Your task to perform on an android device: check google app version Image 0: 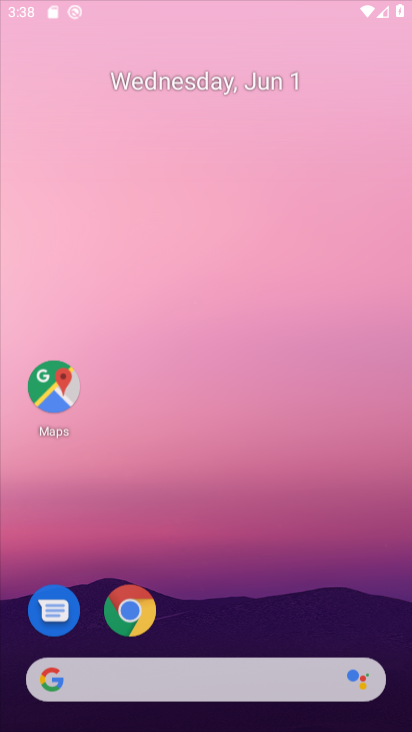
Step 0: click (194, 123)
Your task to perform on an android device: check google app version Image 1: 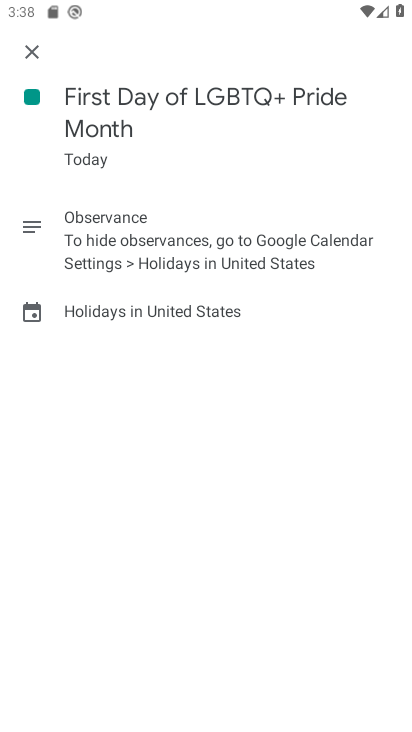
Step 1: press home button
Your task to perform on an android device: check google app version Image 2: 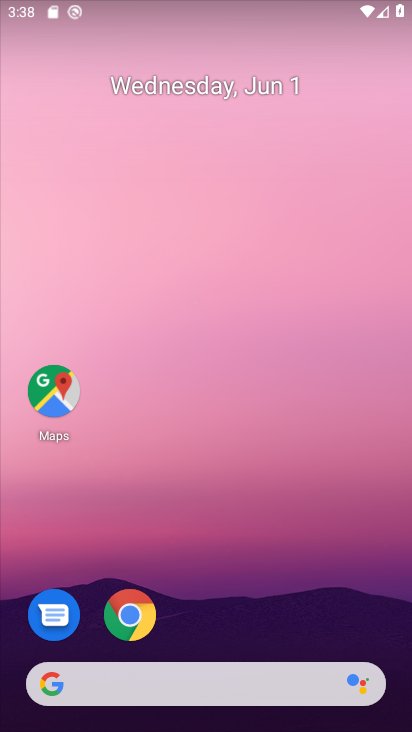
Step 2: drag from (241, 535) to (243, 155)
Your task to perform on an android device: check google app version Image 3: 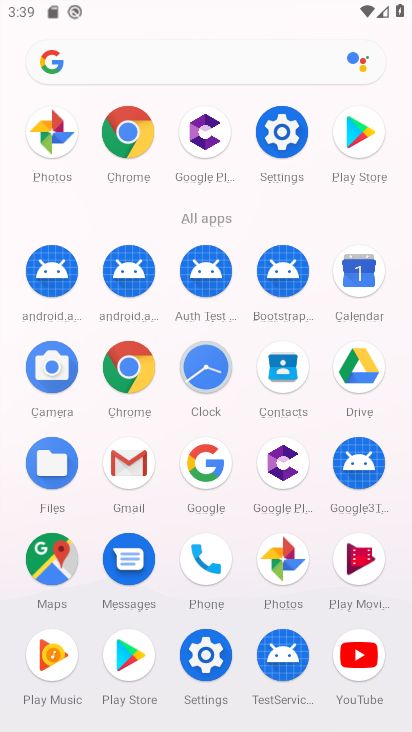
Step 3: click (194, 472)
Your task to perform on an android device: check google app version Image 4: 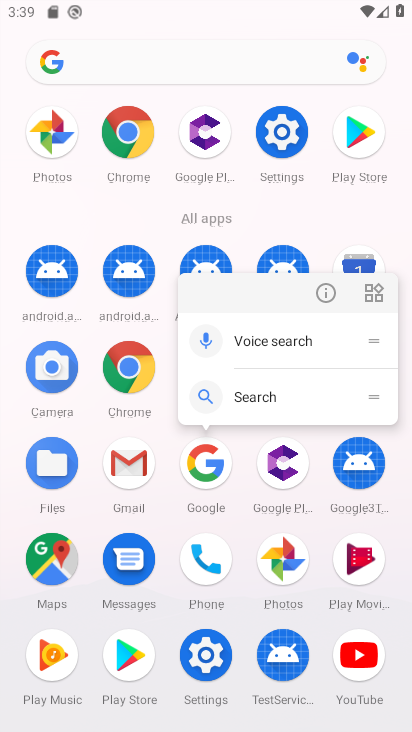
Step 4: click (332, 295)
Your task to perform on an android device: check google app version Image 5: 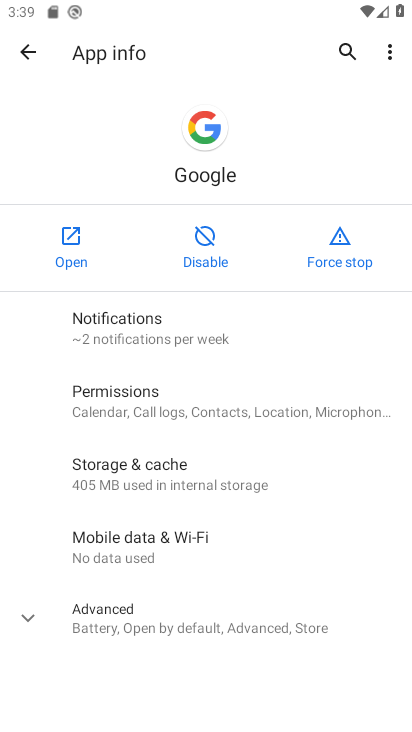
Step 5: drag from (219, 623) to (268, 226)
Your task to perform on an android device: check google app version Image 6: 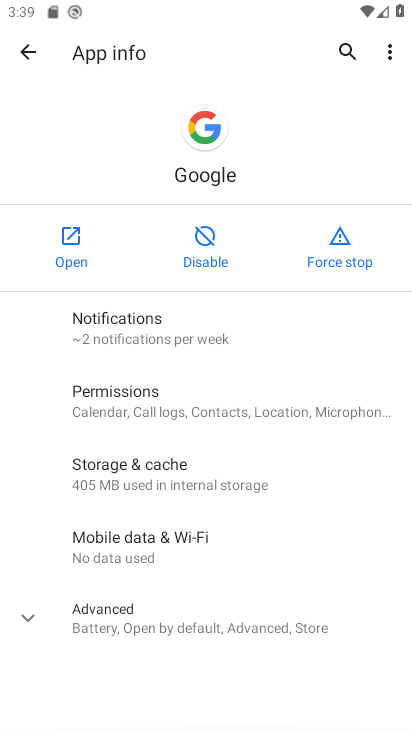
Step 6: click (159, 624)
Your task to perform on an android device: check google app version Image 7: 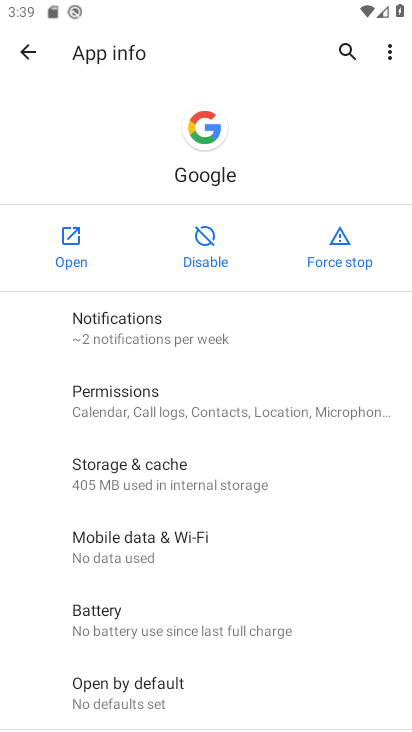
Step 7: task complete